Your task to perform on an android device: turn off data saver in the chrome app Image 0: 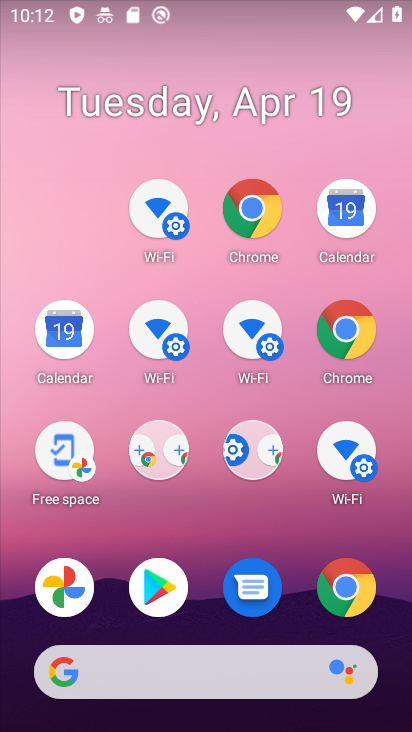
Step 0: click (342, 595)
Your task to perform on an android device: turn off data saver in the chrome app Image 1: 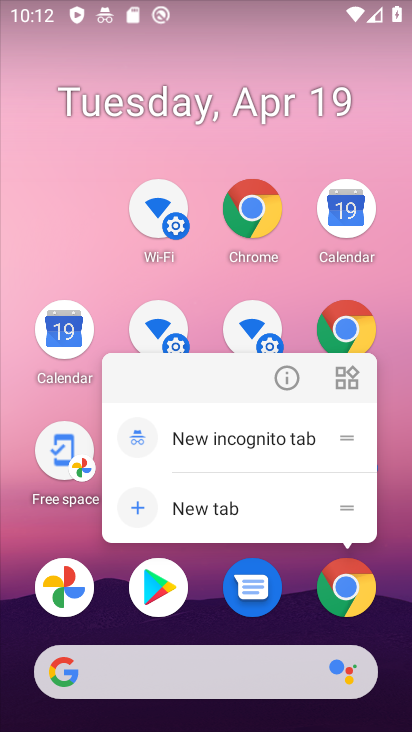
Step 1: click (342, 595)
Your task to perform on an android device: turn off data saver in the chrome app Image 2: 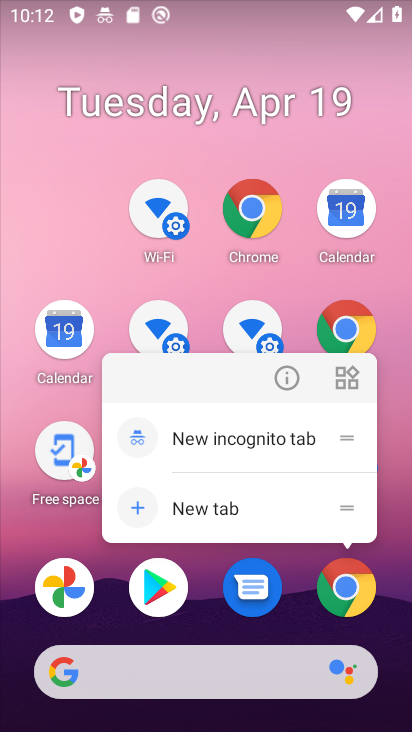
Step 2: click (342, 595)
Your task to perform on an android device: turn off data saver in the chrome app Image 3: 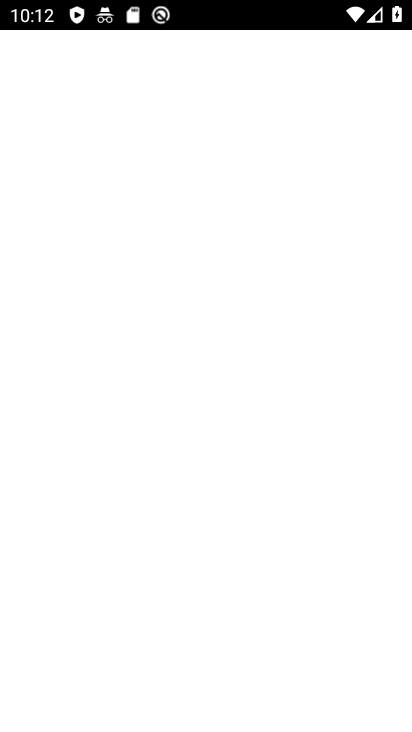
Step 3: click (342, 595)
Your task to perform on an android device: turn off data saver in the chrome app Image 4: 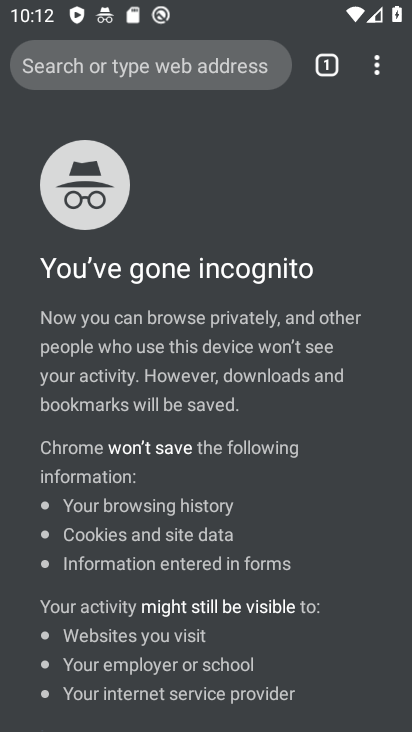
Step 4: drag from (374, 61) to (141, 561)
Your task to perform on an android device: turn off data saver in the chrome app Image 5: 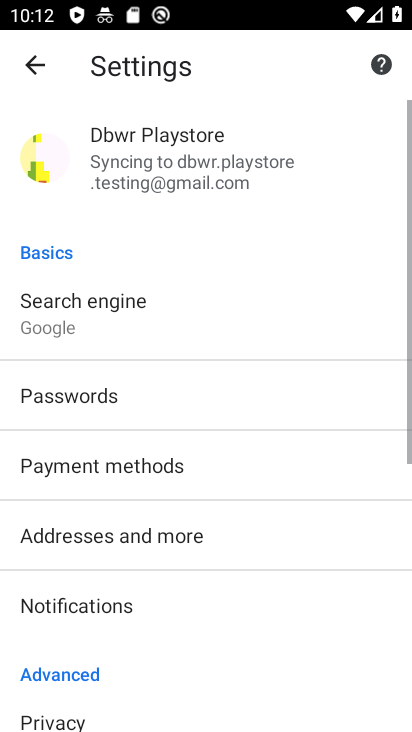
Step 5: click (109, 171)
Your task to perform on an android device: turn off data saver in the chrome app Image 6: 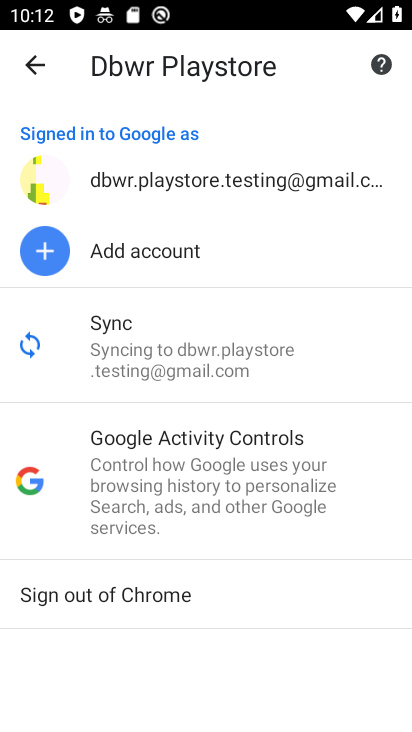
Step 6: drag from (103, 558) to (148, 306)
Your task to perform on an android device: turn off data saver in the chrome app Image 7: 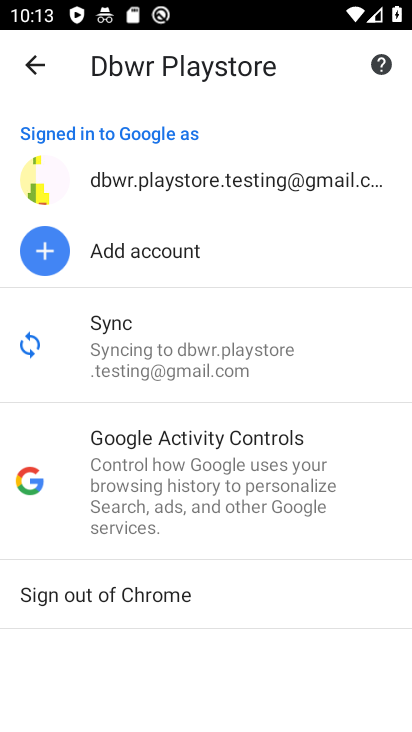
Step 7: click (30, 63)
Your task to perform on an android device: turn off data saver in the chrome app Image 8: 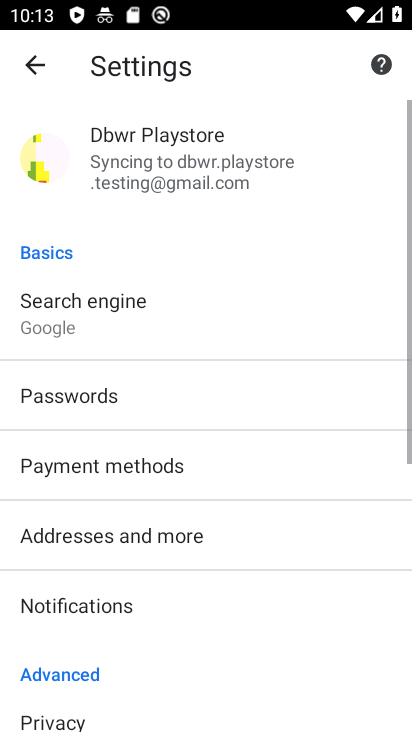
Step 8: drag from (111, 587) to (131, 108)
Your task to perform on an android device: turn off data saver in the chrome app Image 9: 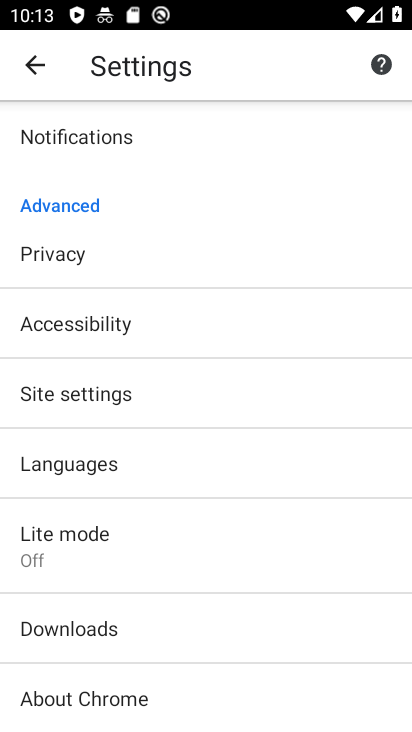
Step 9: click (76, 385)
Your task to perform on an android device: turn off data saver in the chrome app Image 10: 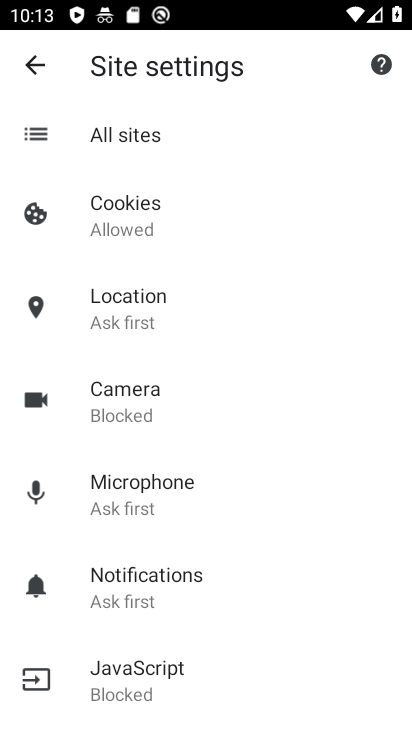
Step 10: drag from (189, 594) to (219, 256)
Your task to perform on an android device: turn off data saver in the chrome app Image 11: 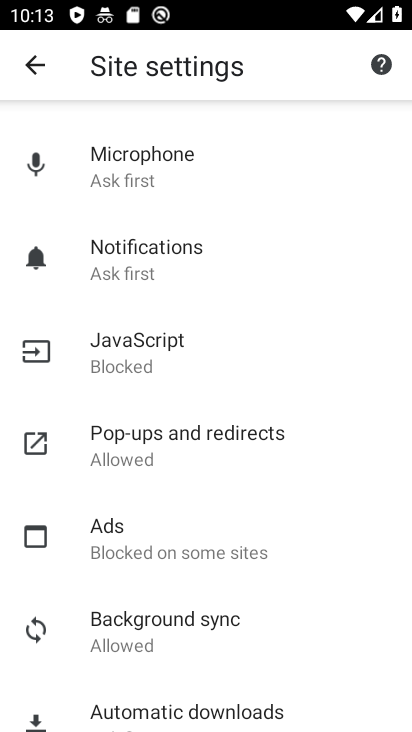
Step 11: click (28, 57)
Your task to perform on an android device: turn off data saver in the chrome app Image 12: 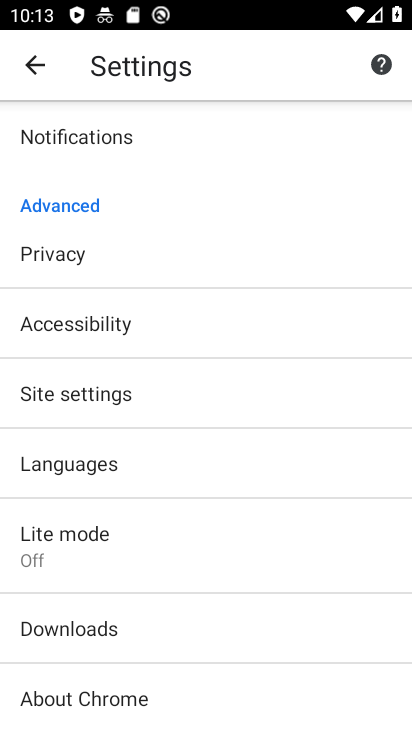
Step 12: click (60, 528)
Your task to perform on an android device: turn off data saver in the chrome app Image 13: 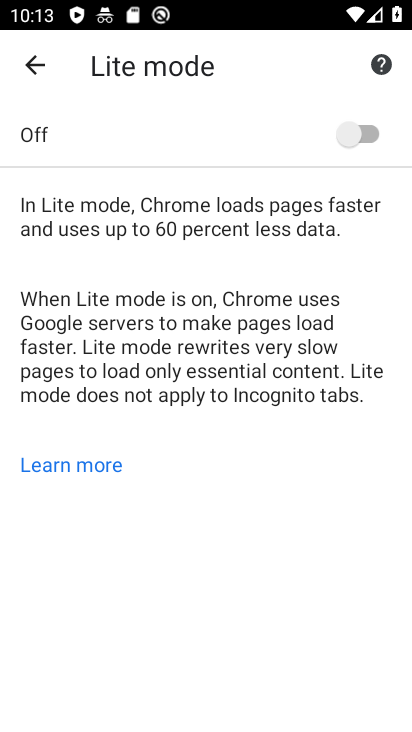
Step 13: task complete